Your task to perform on an android device: Open Chrome and go to the settings page Image 0: 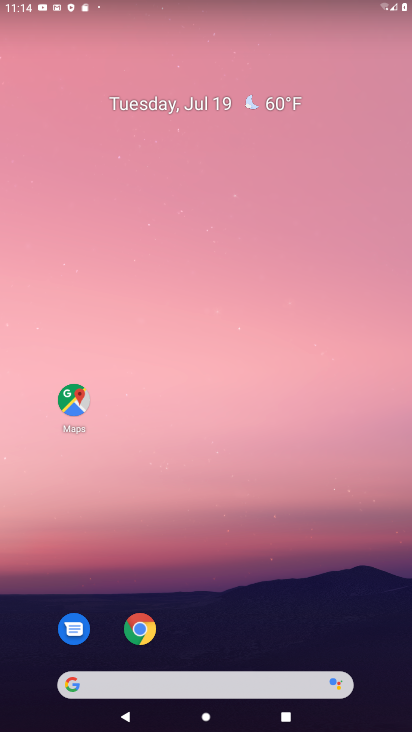
Step 0: click (137, 640)
Your task to perform on an android device: Open Chrome and go to the settings page Image 1: 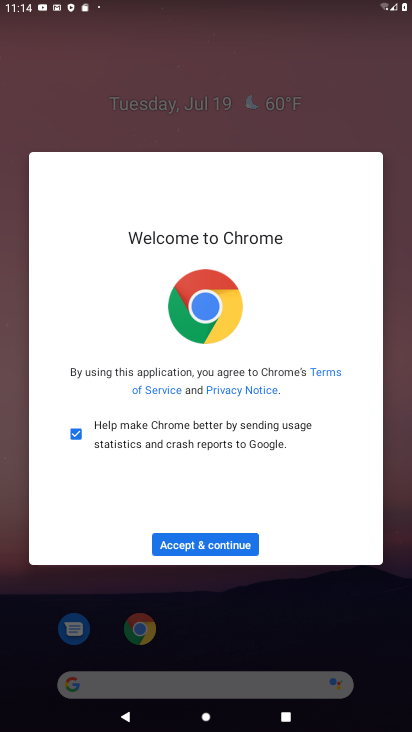
Step 1: click (219, 548)
Your task to perform on an android device: Open Chrome and go to the settings page Image 2: 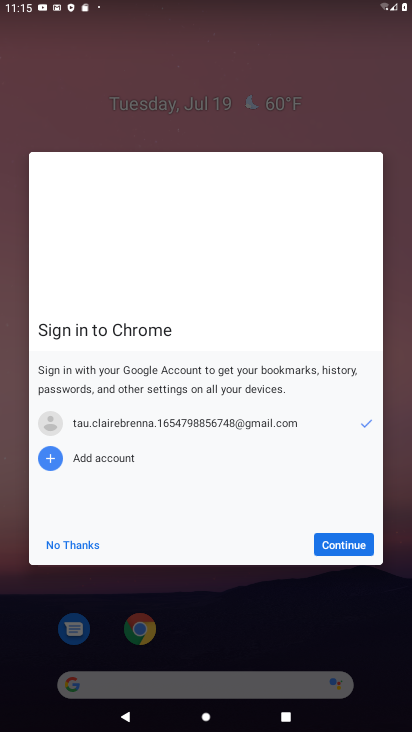
Step 2: click (348, 545)
Your task to perform on an android device: Open Chrome and go to the settings page Image 3: 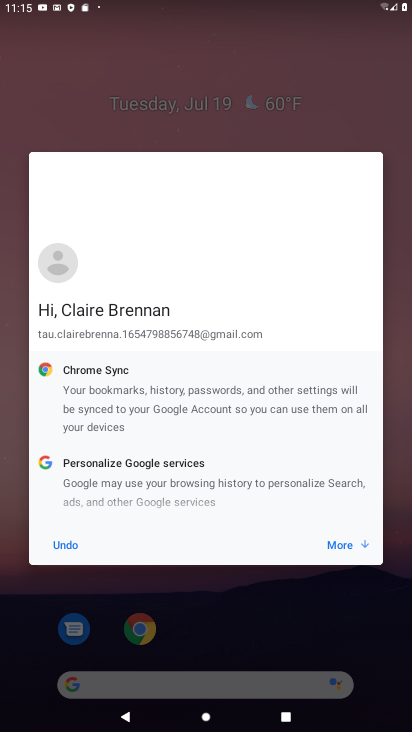
Step 3: click (348, 545)
Your task to perform on an android device: Open Chrome and go to the settings page Image 4: 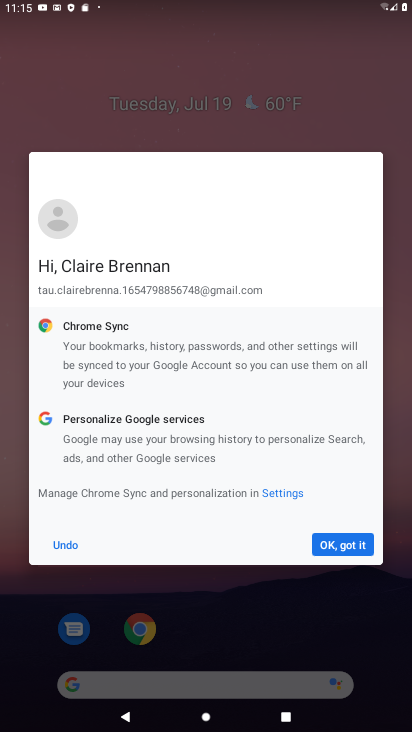
Step 4: click (349, 545)
Your task to perform on an android device: Open Chrome and go to the settings page Image 5: 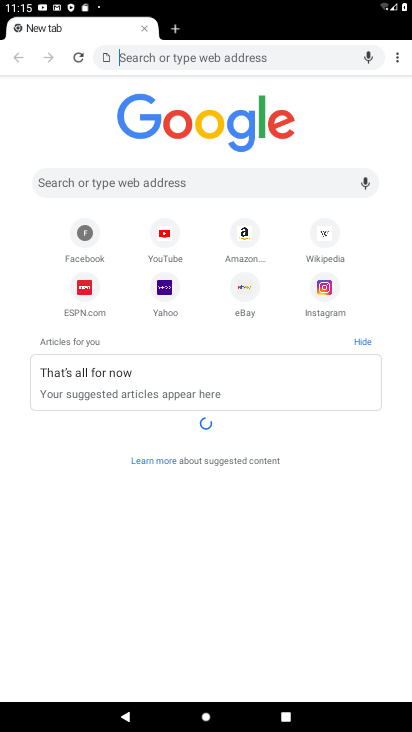
Step 5: click (395, 59)
Your task to perform on an android device: Open Chrome and go to the settings page Image 6: 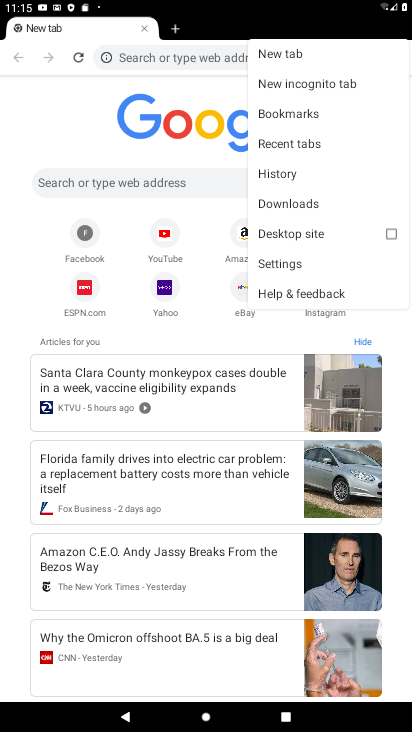
Step 6: click (302, 263)
Your task to perform on an android device: Open Chrome and go to the settings page Image 7: 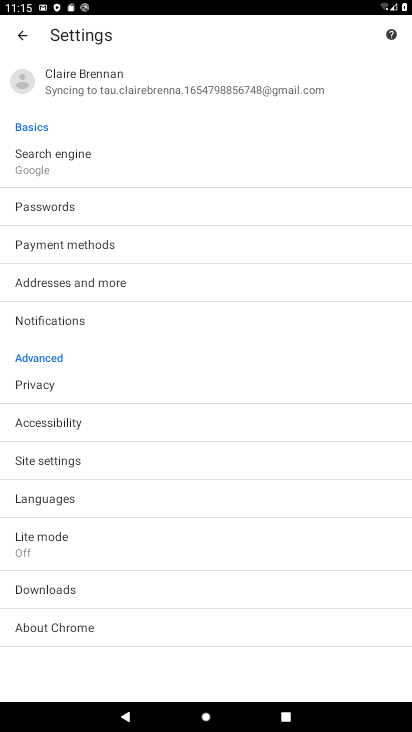
Step 7: task complete